Your task to perform on an android device: change the clock display to analog Image 0: 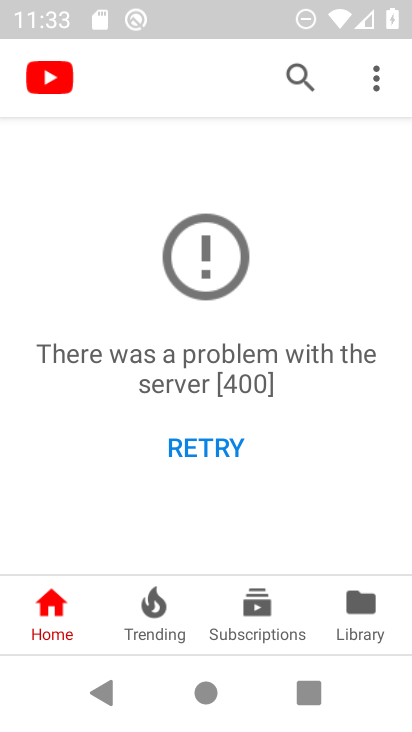
Step 0: press home button
Your task to perform on an android device: change the clock display to analog Image 1: 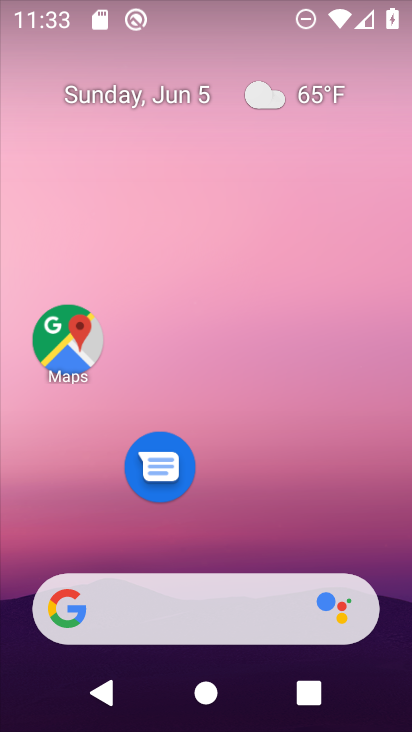
Step 1: drag from (317, 538) to (206, 1)
Your task to perform on an android device: change the clock display to analog Image 2: 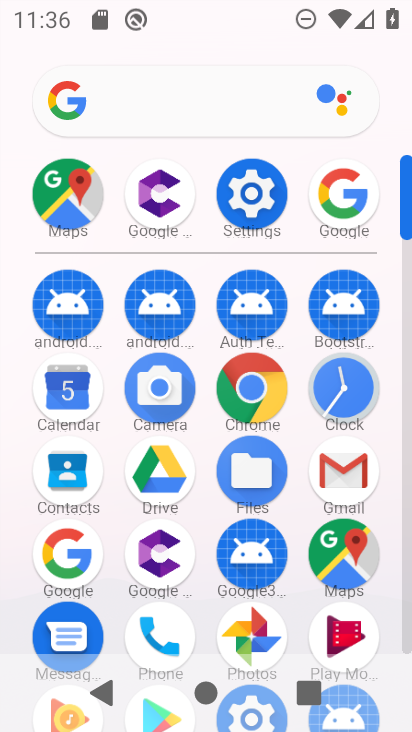
Step 2: click (345, 372)
Your task to perform on an android device: change the clock display to analog Image 3: 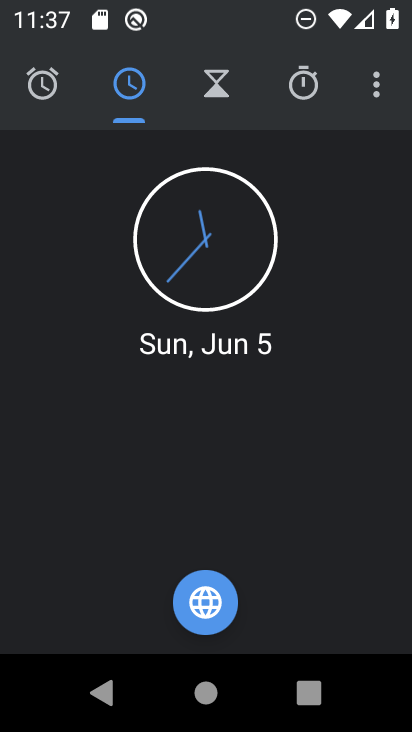
Step 3: drag from (381, 76) to (206, 153)
Your task to perform on an android device: change the clock display to analog Image 4: 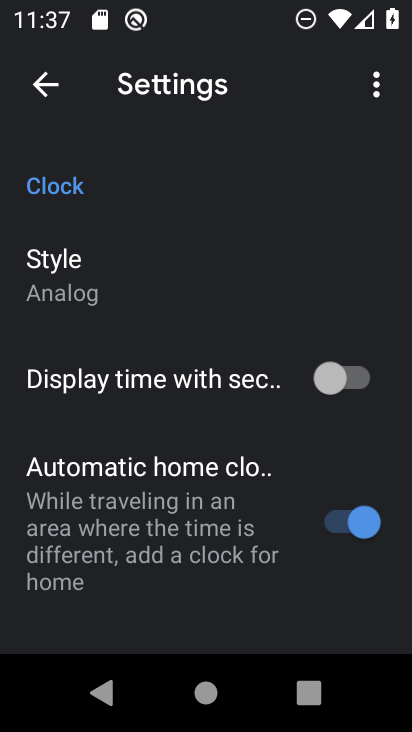
Step 4: click (87, 301)
Your task to perform on an android device: change the clock display to analog Image 5: 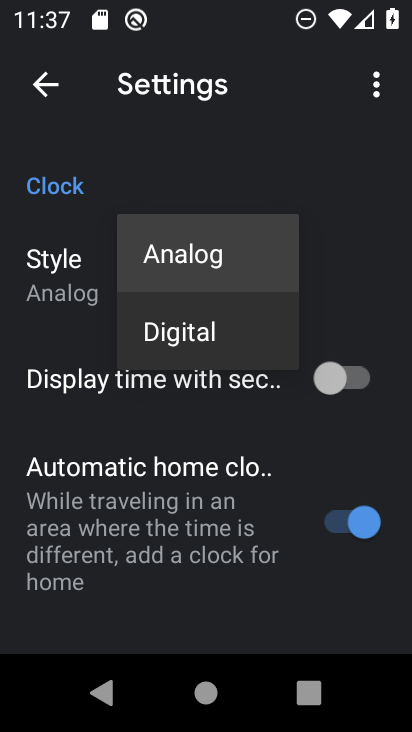
Step 5: click (205, 271)
Your task to perform on an android device: change the clock display to analog Image 6: 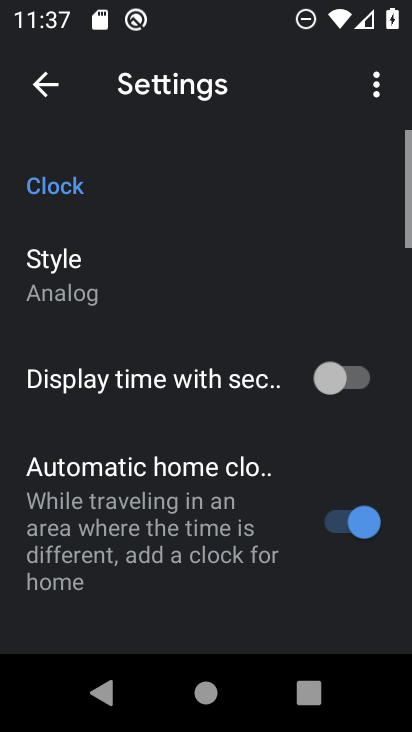
Step 6: task complete